Your task to perform on an android device: Open maps Image 0: 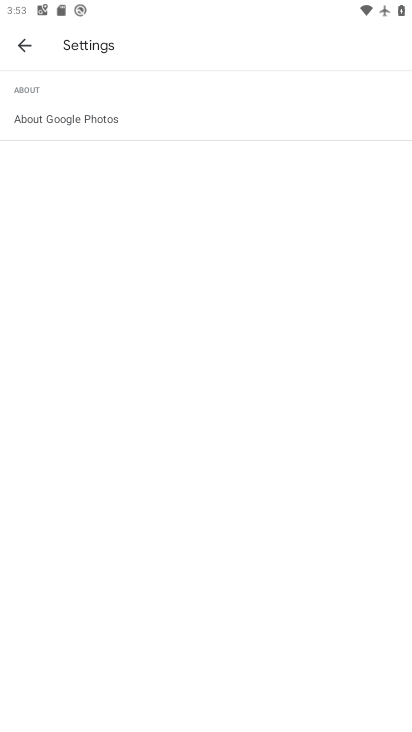
Step 0: press home button
Your task to perform on an android device: Open maps Image 1: 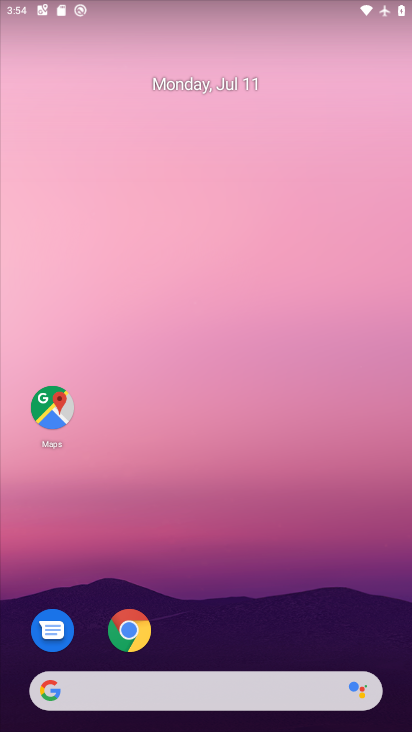
Step 1: click (50, 411)
Your task to perform on an android device: Open maps Image 2: 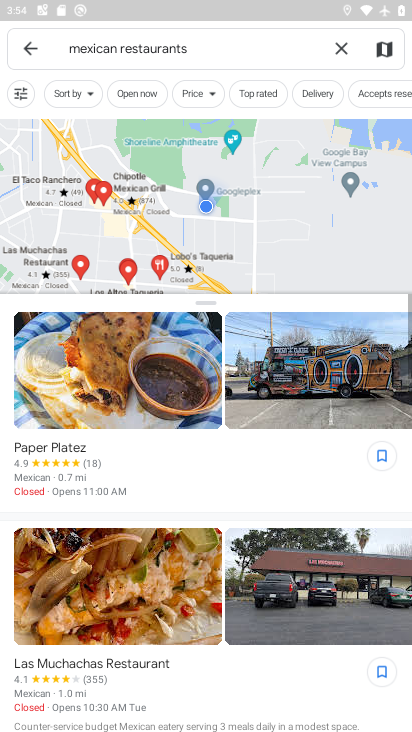
Step 2: task complete